Your task to perform on an android device: Add "duracell triple a" to the cart on ebay, then select checkout. Image 0: 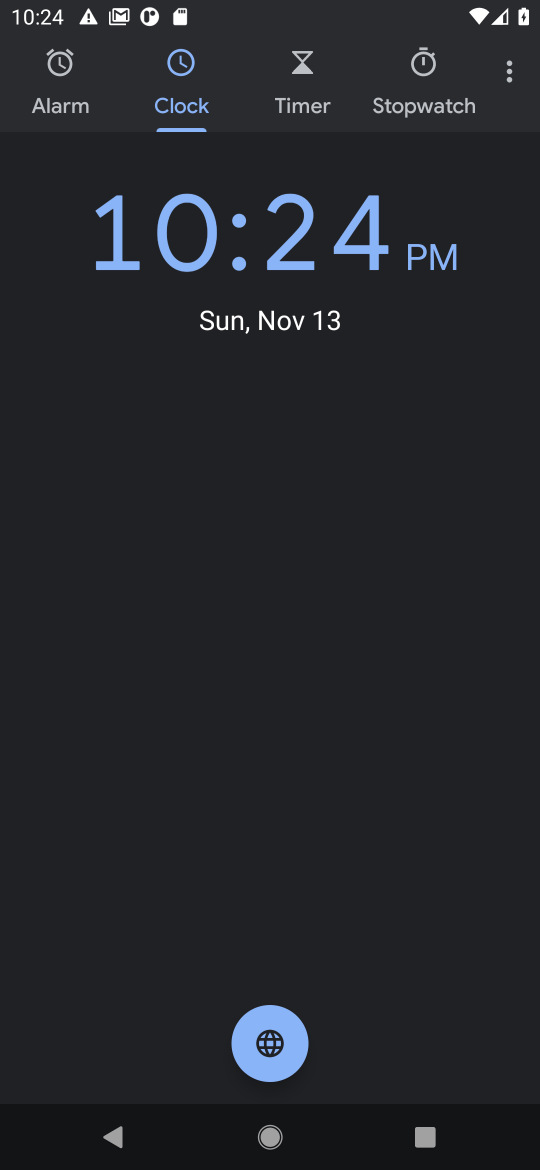
Step 0: press home button
Your task to perform on an android device: Add "duracell triple a" to the cart on ebay, then select checkout. Image 1: 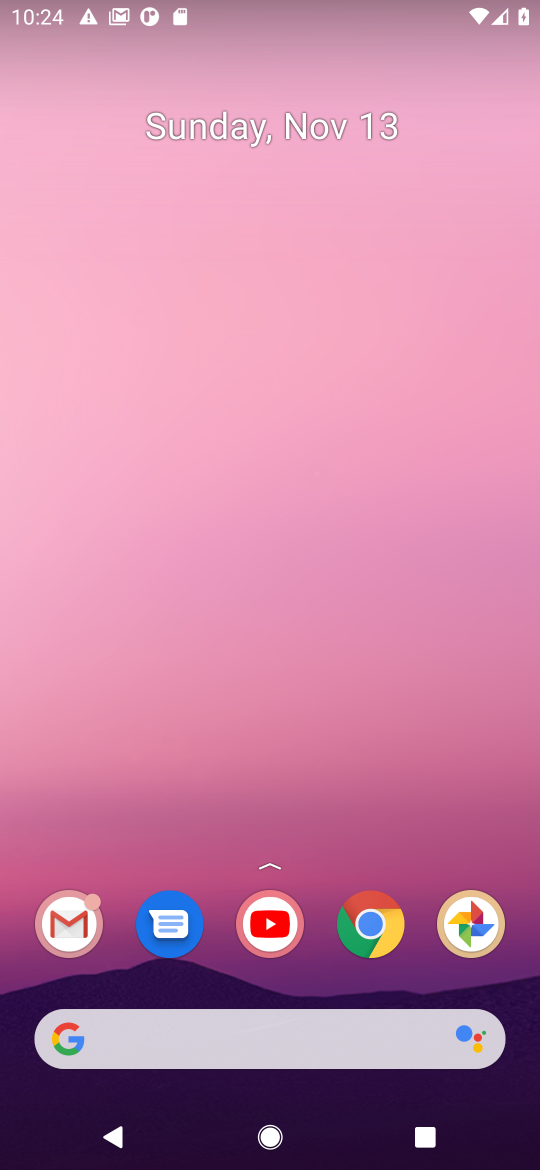
Step 1: click (368, 934)
Your task to perform on an android device: Add "duracell triple a" to the cart on ebay, then select checkout. Image 2: 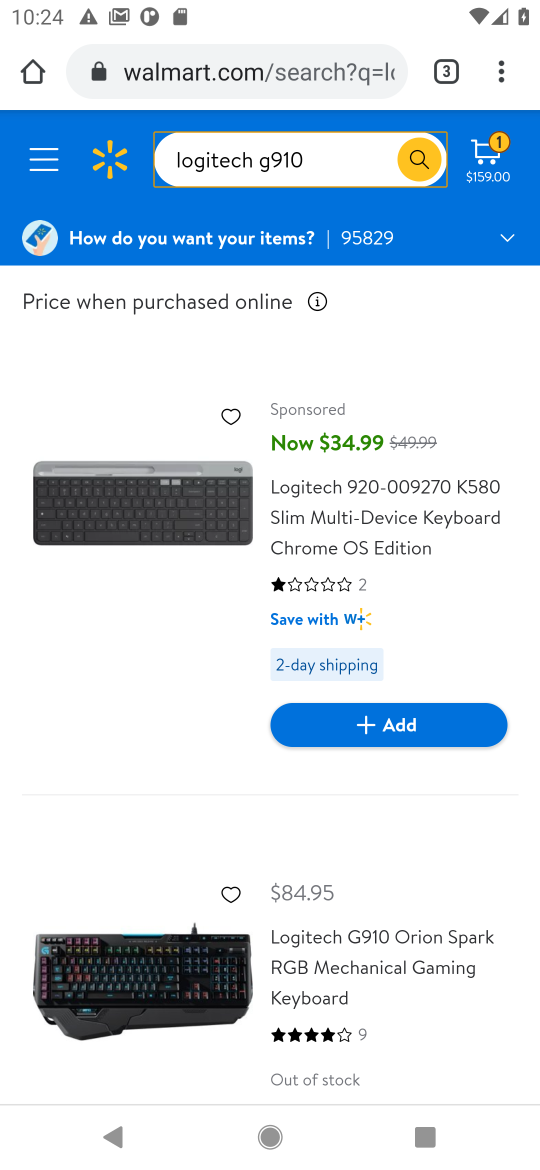
Step 2: click (266, 77)
Your task to perform on an android device: Add "duracell triple a" to the cart on ebay, then select checkout. Image 3: 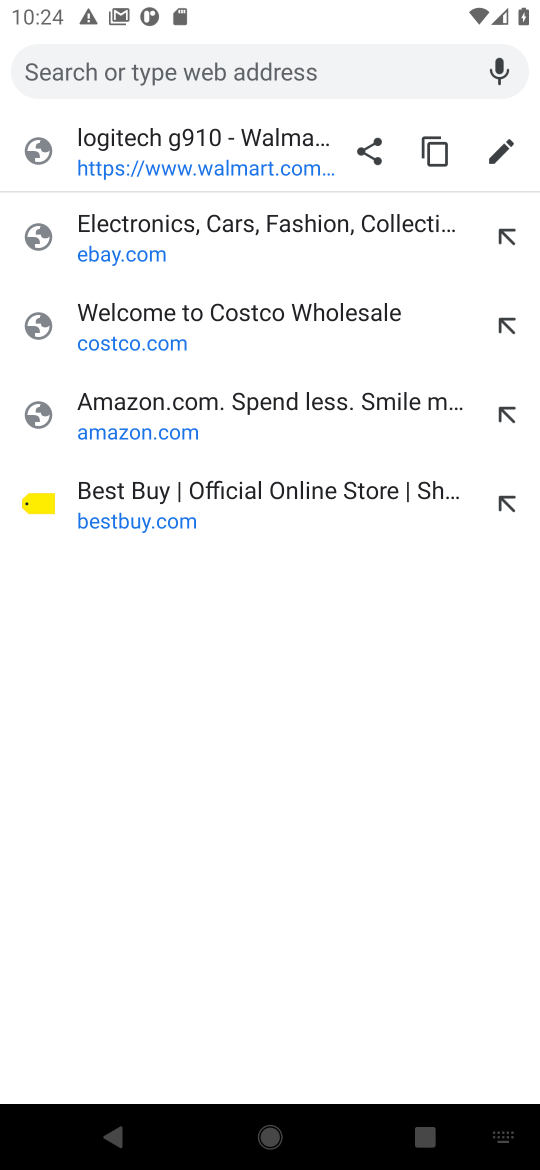
Step 3: click (121, 249)
Your task to perform on an android device: Add "duracell triple a" to the cart on ebay, then select checkout. Image 4: 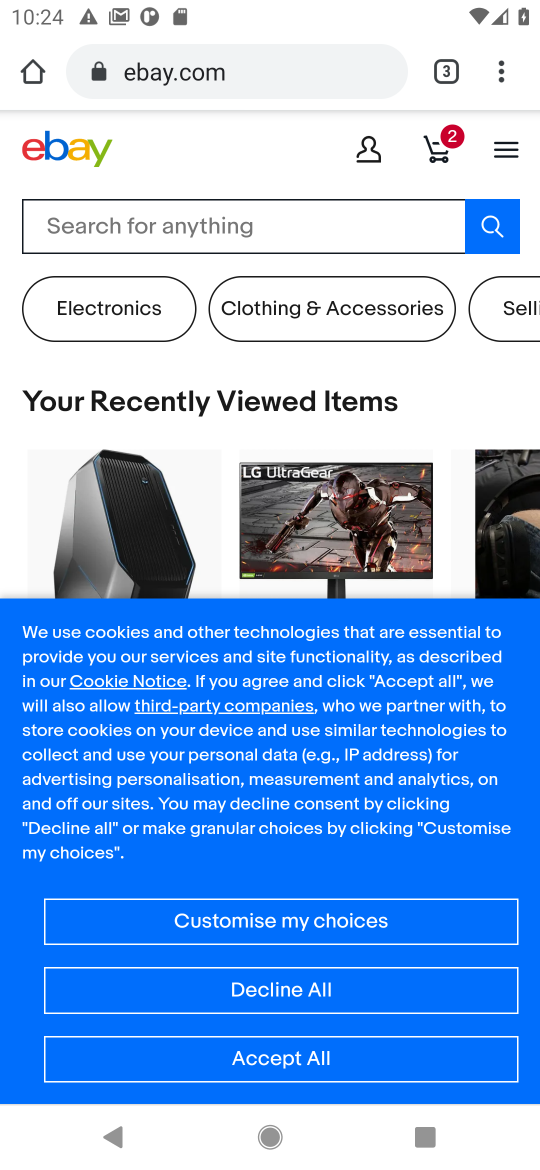
Step 4: click (228, 205)
Your task to perform on an android device: Add "duracell triple a" to the cart on ebay, then select checkout. Image 5: 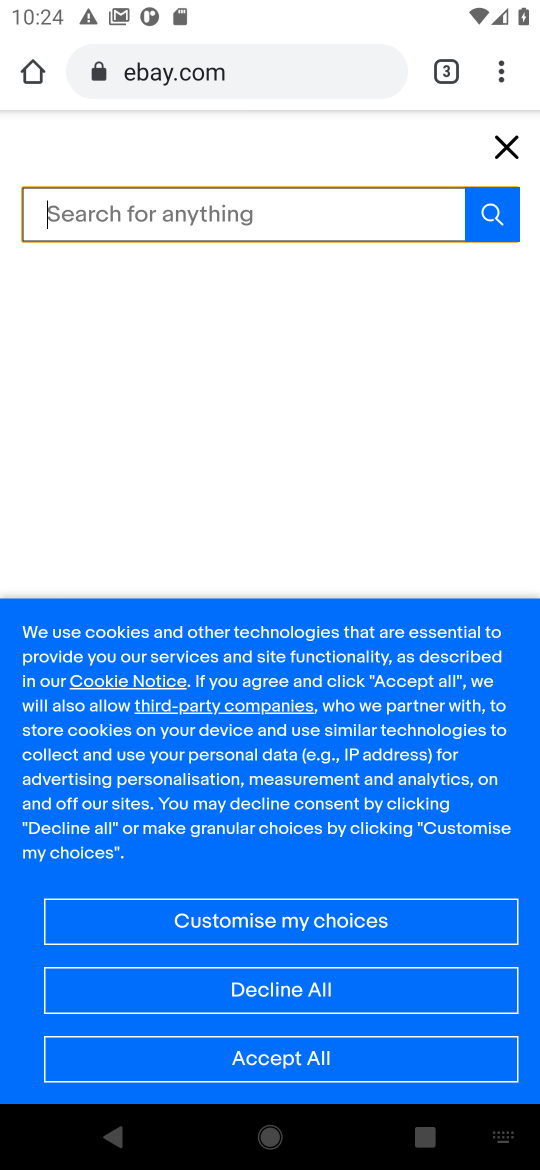
Step 5: type "duracell triple a"
Your task to perform on an android device: Add "duracell triple a" to the cart on ebay, then select checkout. Image 6: 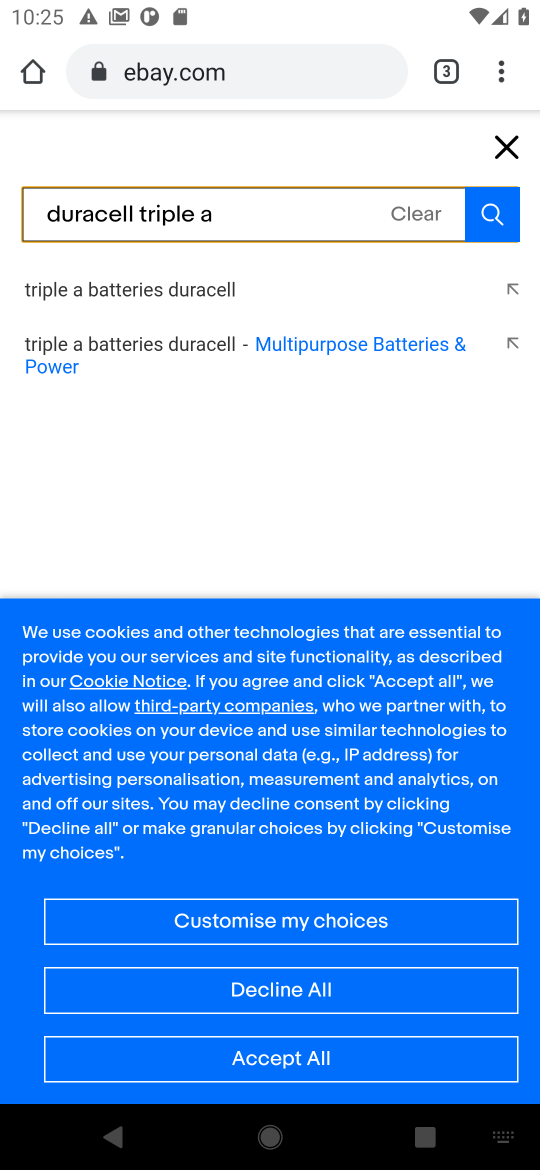
Step 6: click (494, 218)
Your task to perform on an android device: Add "duracell triple a" to the cart on ebay, then select checkout. Image 7: 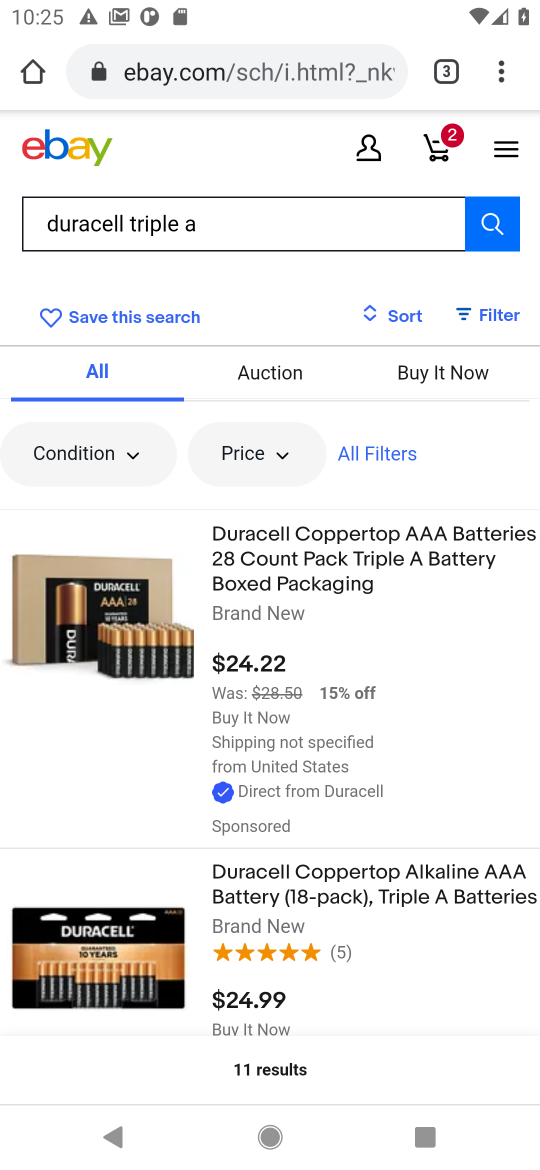
Step 7: click (104, 653)
Your task to perform on an android device: Add "duracell triple a" to the cart on ebay, then select checkout. Image 8: 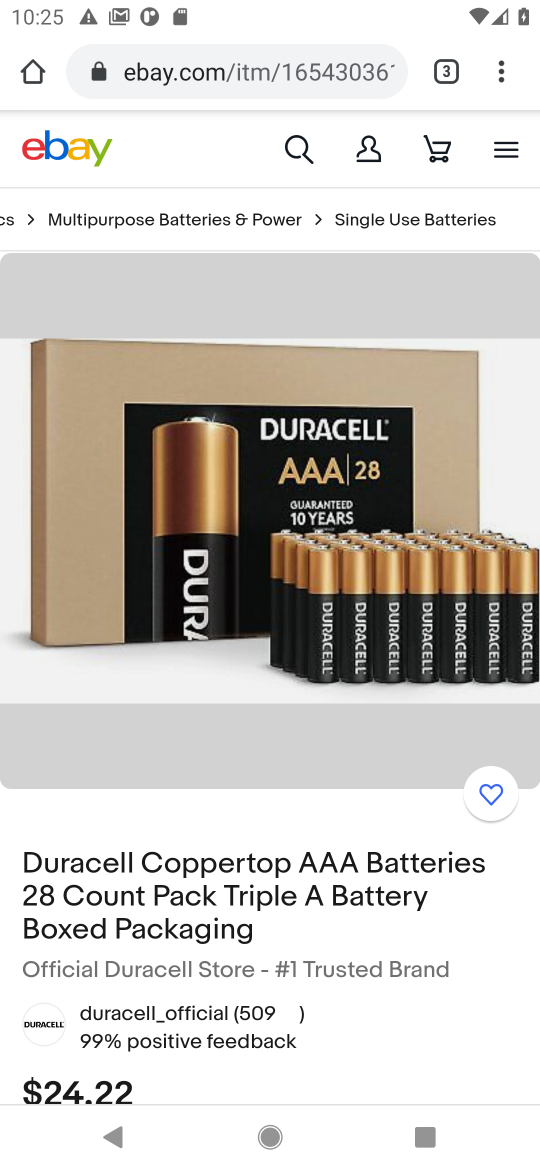
Step 8: drag from (244, 820) to (249, 459)
Your task to perform on an android device: Add "duracell triple a" to the cart on ebay, then select checkout. Image 9: 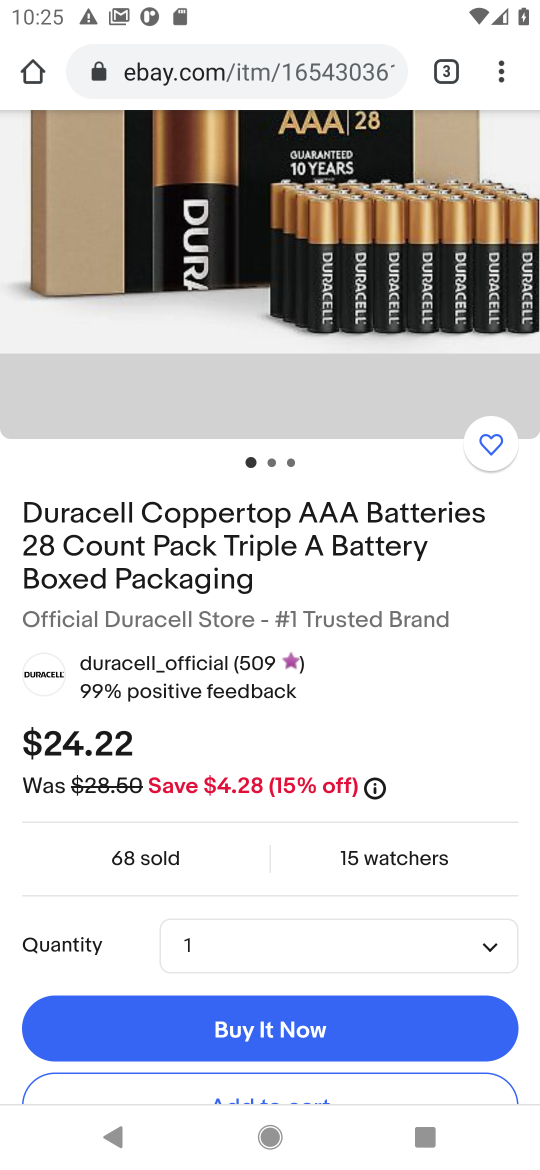
Step 9: drag from (307, 952) to (291, 547)
Your task to perform on an android device: Add "duracell triple a" to the cart on ebay, then select checkout. Image 10: 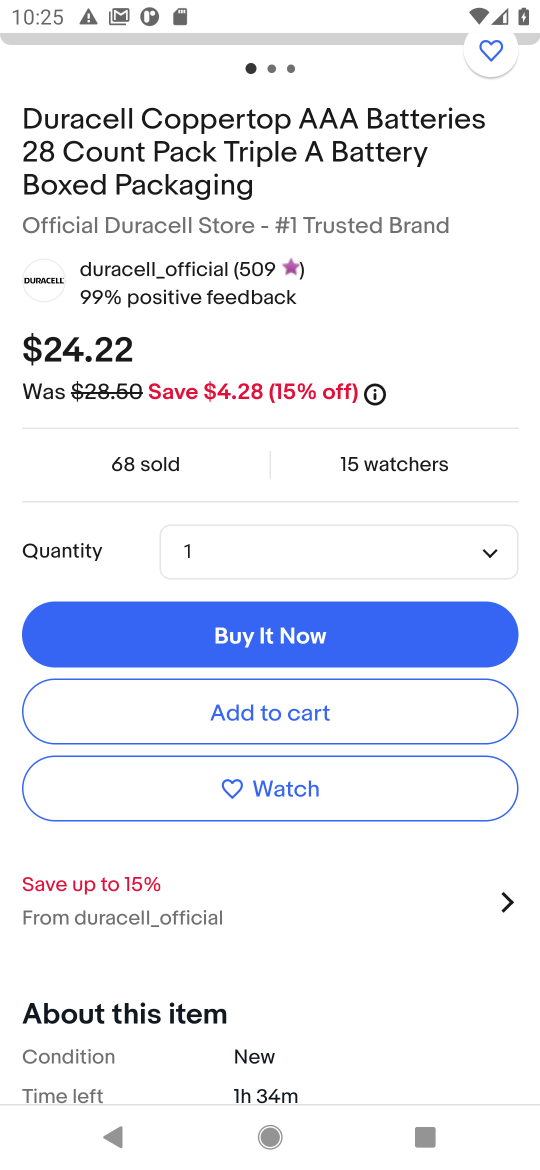
Step 10: click (234, 723)
Your task to perform on an android device: Add "duracell triple a" to the cart on ebay, then select checkout. Image 11: 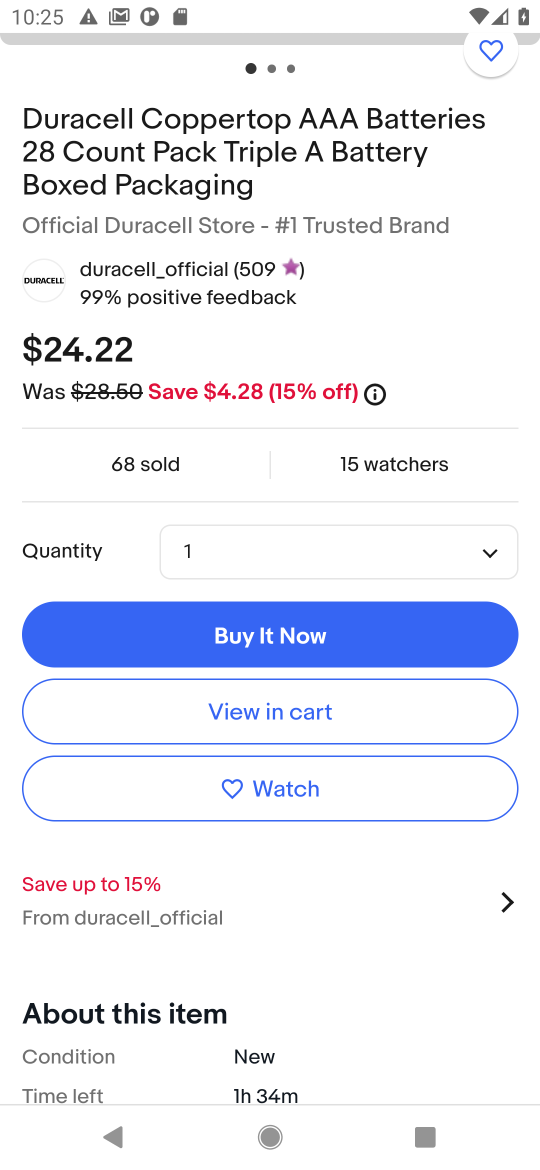
Step 11: click (253, 718)
Your task to perform on an android device: Add "duracell triple a" to the cart on ebay, then select checkout. Image 12: 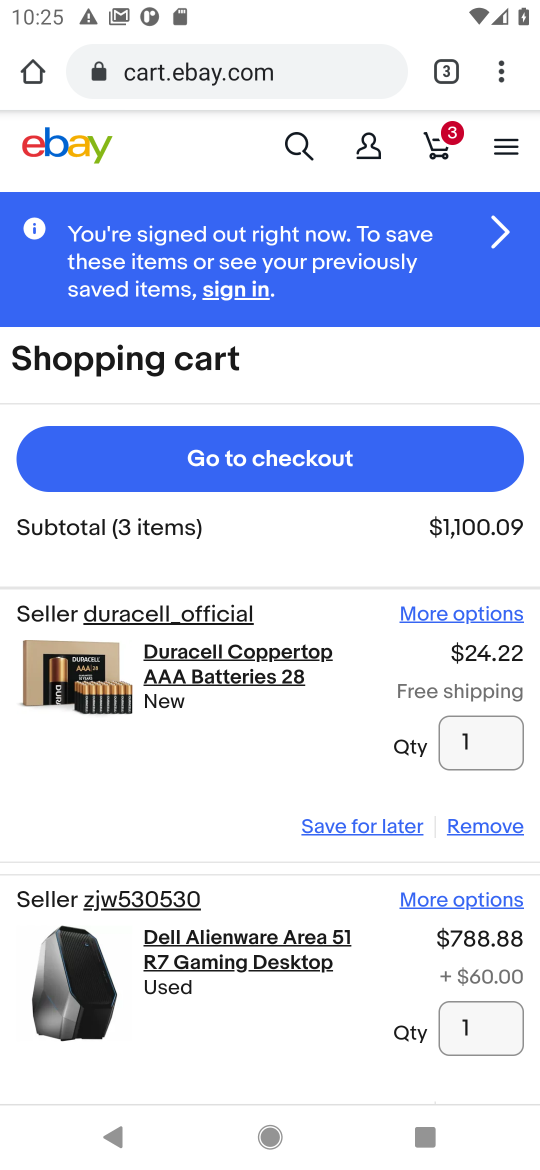
Step 12: click (279, 462)
Your task to perform on an android device: Add "duracell triple a" to the cart on ebay, then select checkout. Image 13: 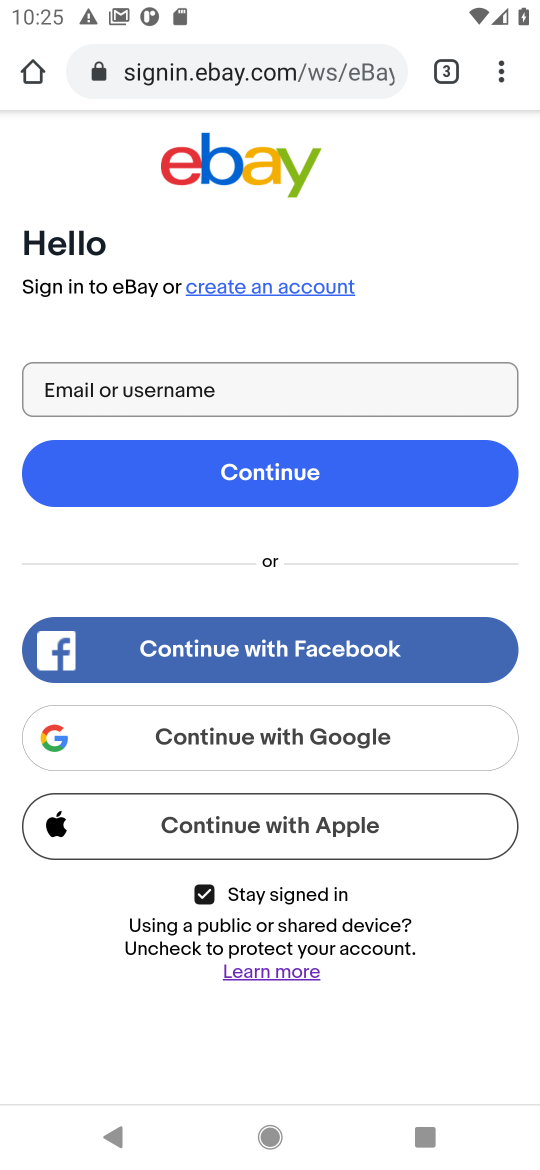
Step 13: task complete